Your task to perform on an android device: turn notification dots on Image 0: 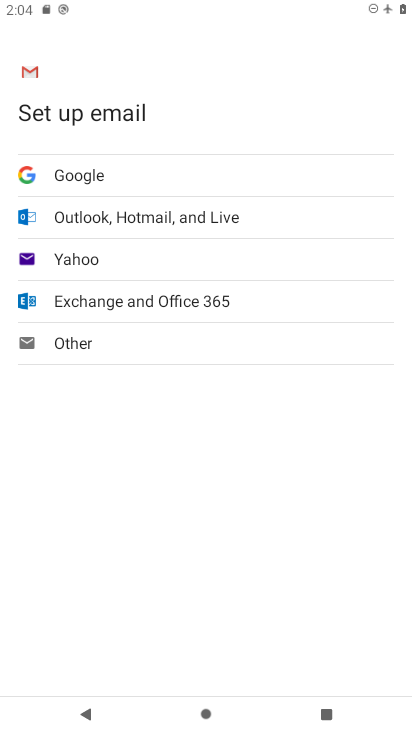
Step 0: press home button
Your task to perform on an android device: turn notification dots on Image 1: 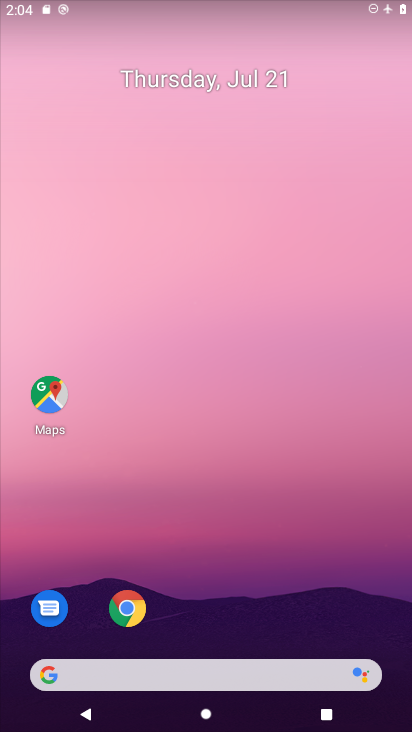
Step 1: drag from (240, 723) to (212, 189)
Your task to perform on an android device: turn notification dots on Image 2: 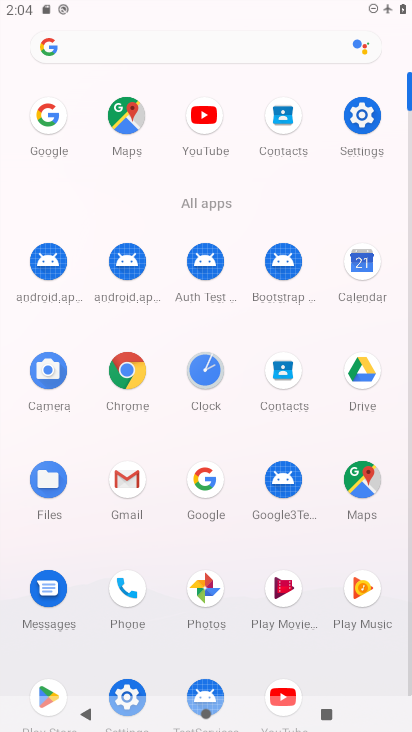
Step 2: click (362, 130)
Your task to perform on an android device: turn notification dots on Image 3: 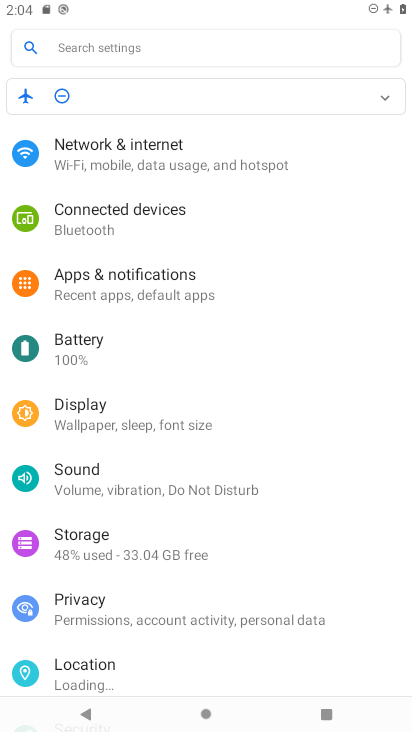
Step 3: click (94, 286)
Your task to perform on an android device: turn notification dots on Image 4: 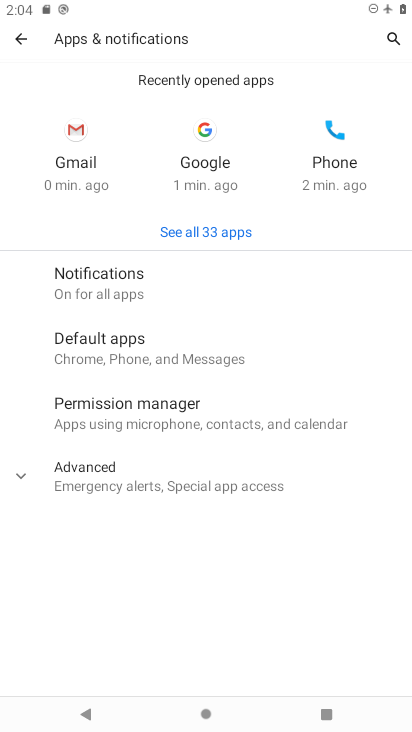
Step 4: click (99, 276)
Your task to perform on an android device: turn notification dots on Image 5: 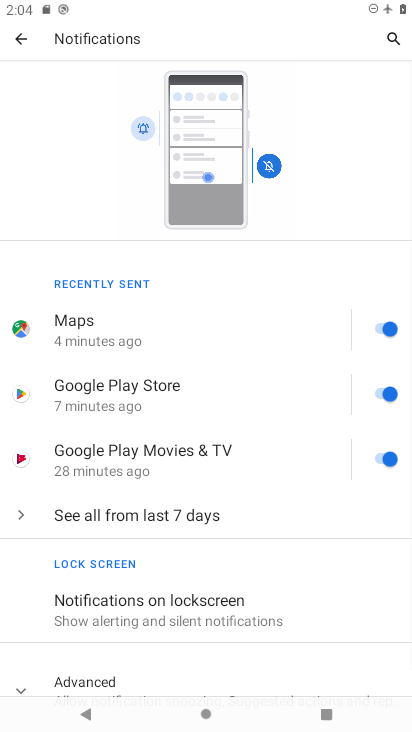
Step 5: drag from (195, 665) to (184, 399)
Your task to perform on an android device: turn notification dots on Image 6: 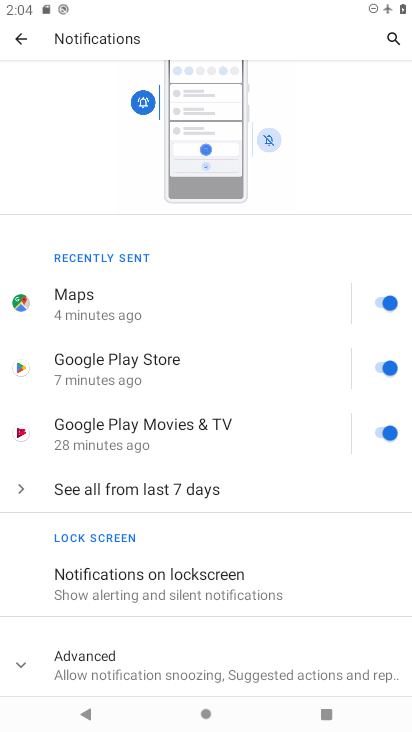
Step 6: click (157, 664)
Your task to perform on an android device: turn notification dots on Image 7: 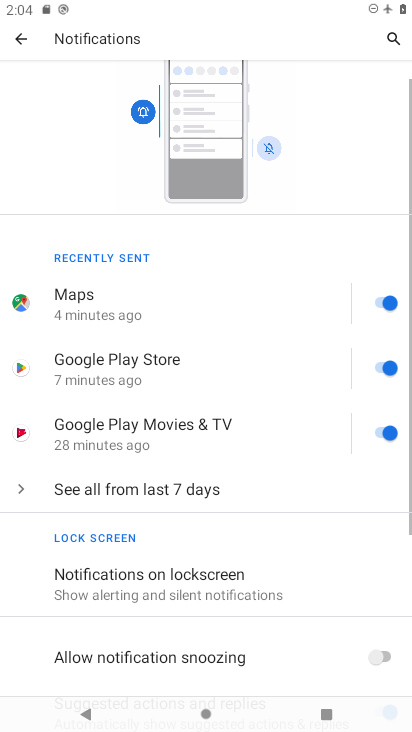
Step 7: task complete